Your task to perform on an android device: Open settings on Google Maps Image 0: 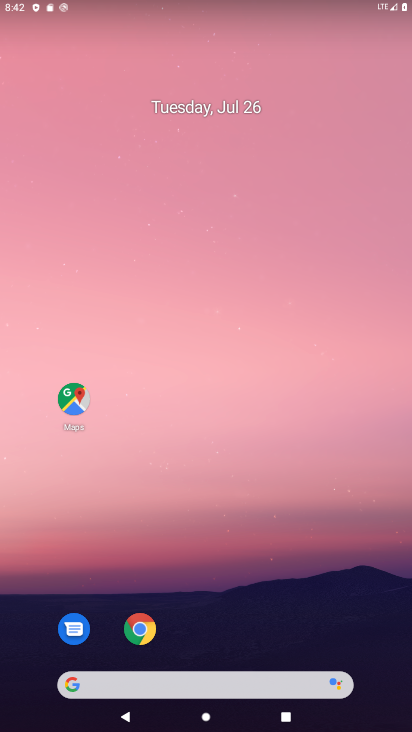
Step 0: click (132, 106)
Your task to perform on an android device: Open settings on Google Maps Image 1: 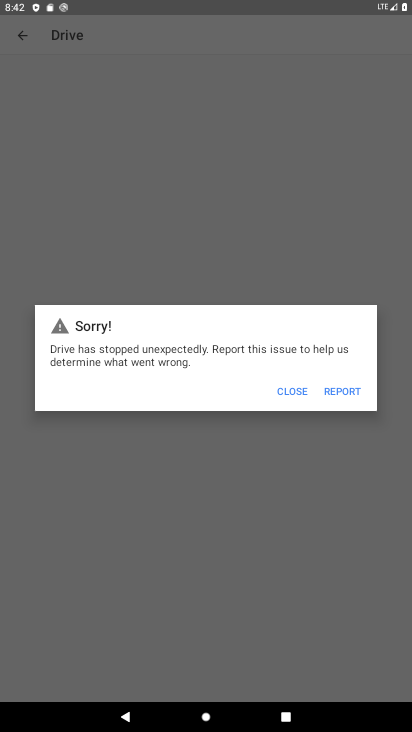
Step 1: press home button
Your task to perform on an android device: Open settings on Google Maps Image 2: 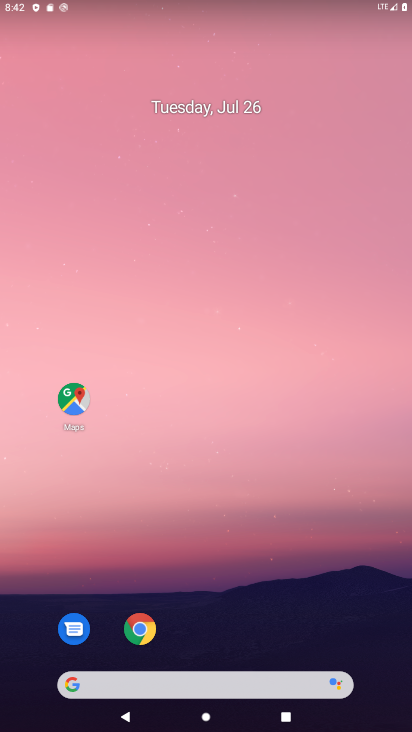
Step 2: drag from (237, 660) to (160, 15)
Your task to perform on an android device: Open settings on Google Maps Image 3: 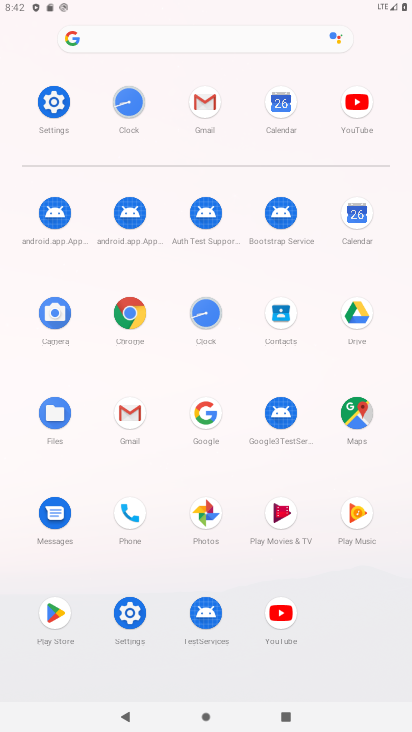
Step 3: click (359, 427)
Your task to perform on an android device: Open settings on Google Maps Image 4: 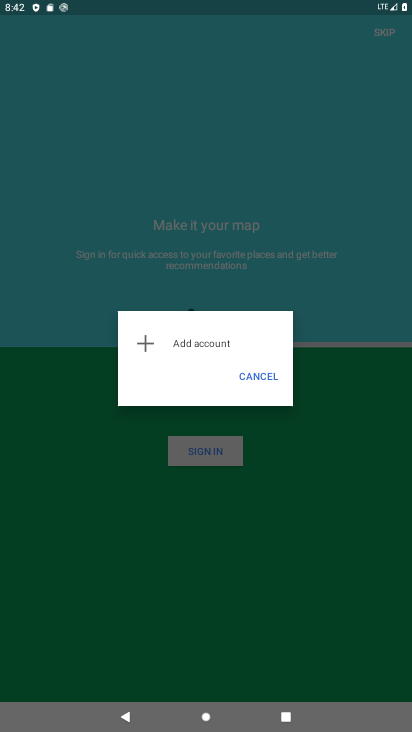
Step 4: click (266, 380)
Your task to perform on an android device: Open settings on Google Maps Image 5: 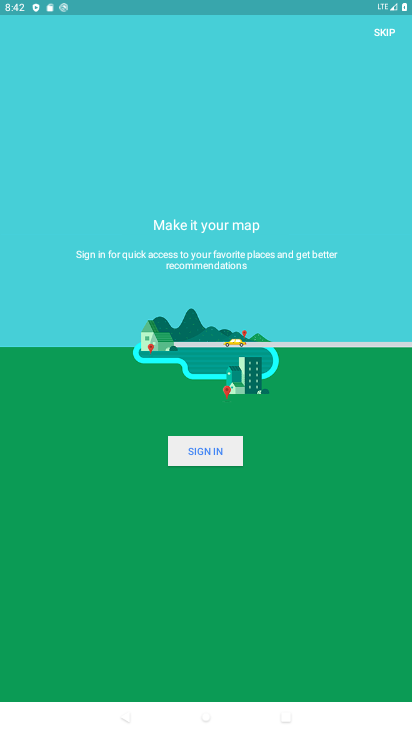
Step 5: click (384, 33)
Your task to perform on an android device: Open settings on Google Maps Image 6: 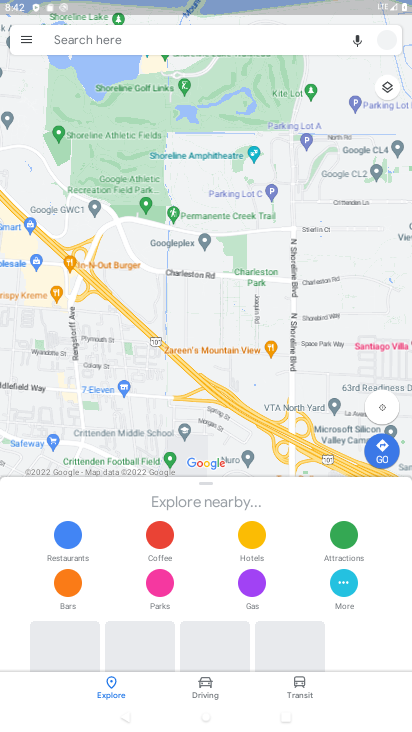
Step 6: click (370, 30)
Your task to perform on an android device: Open settings on Google Maps Image 7: 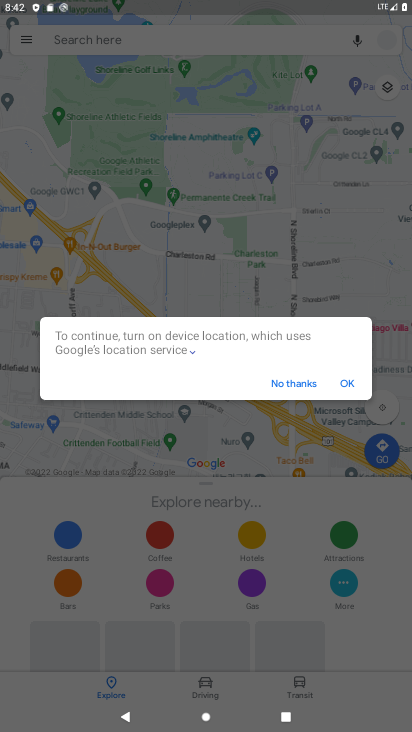
Step 7: click (266, 145)
Your task to perform on an android device: Open settings on Google Maps Image 8: 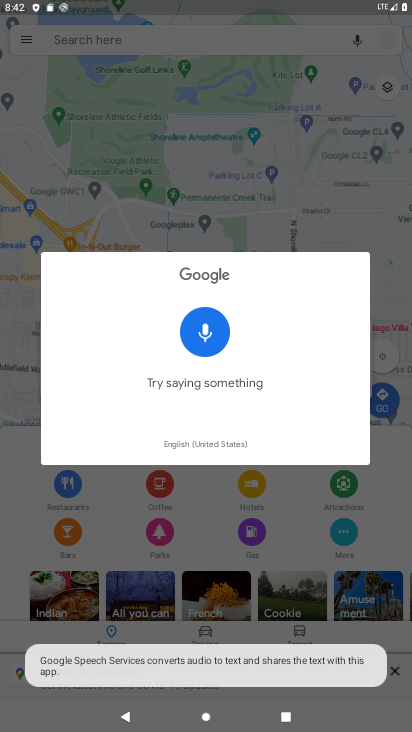
Step 8: click (275, 385)
Your task to perform on an android device: Open settings on Google Maps Image 9: 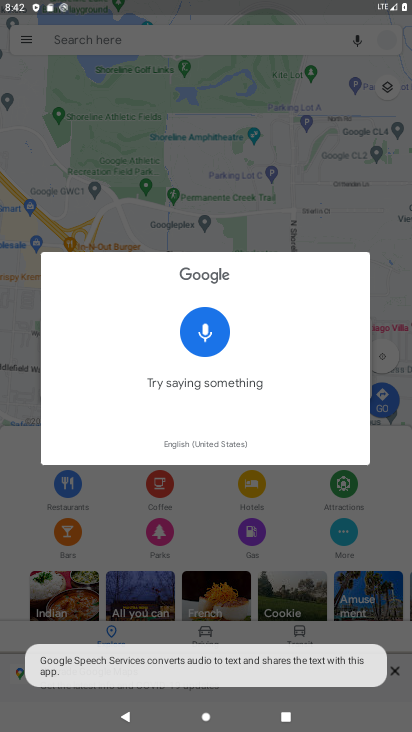
Step 9: click (259, 106)
Your task to perform on an android device: Open settings on Google Maps Image 10: 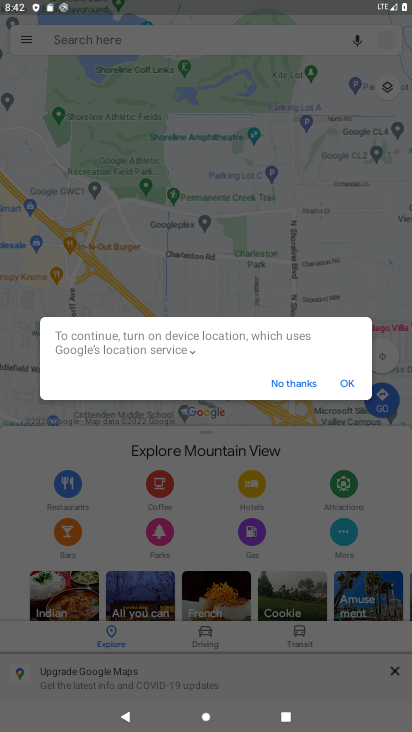
Step 10: click (382, 379)
Your task to perform on an android device: Open settings on Google Maps Image 11: 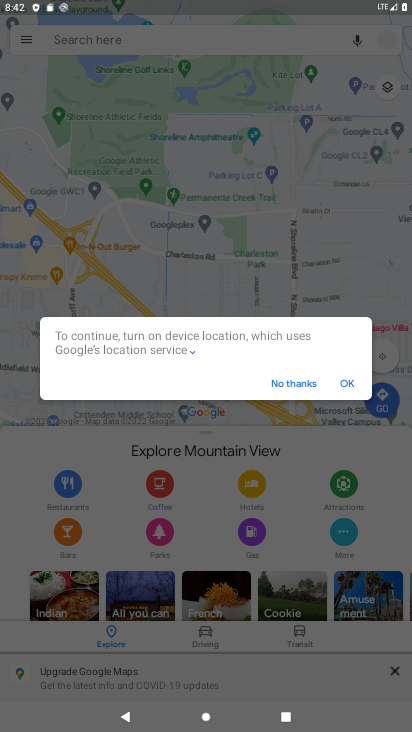
Step 11: click (352, 379)
Your task to perform on an android device: Open settings on Google Maps Image 12: 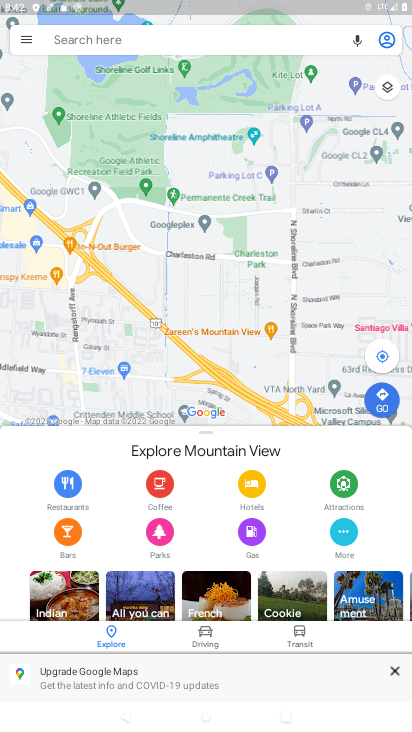
Step 12: click (20, 32)
Your task to perform on an android device: Open settings on Google Maps Image 13: 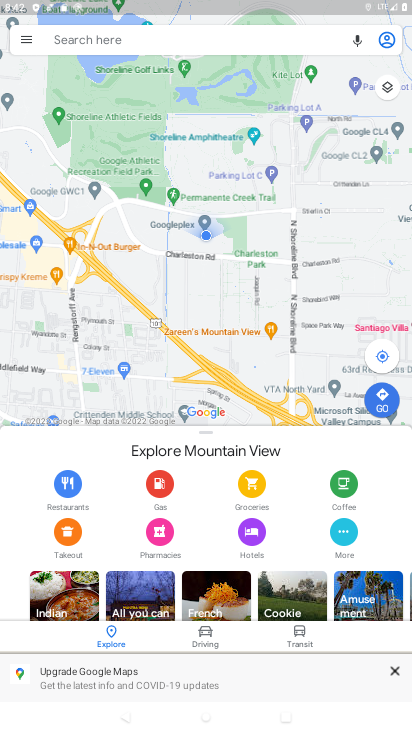
Step 13: click (23, 35)
Your task to perform on an android device: Open settings on Google Maps Image 14: 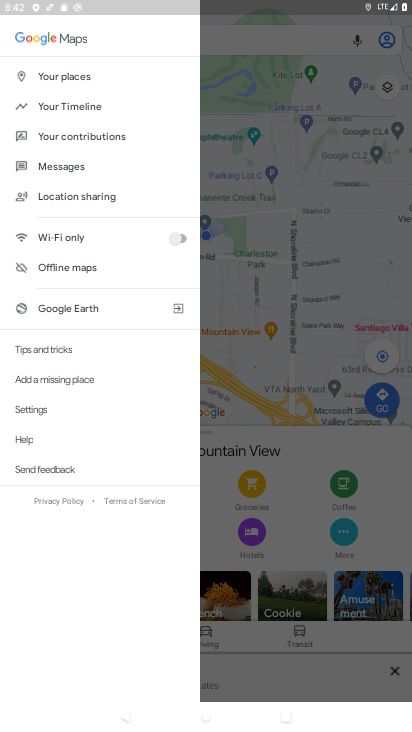
Step 14: click (23, 40)
Your task to perform on an android device: Open settings on Google Maps Image 15: 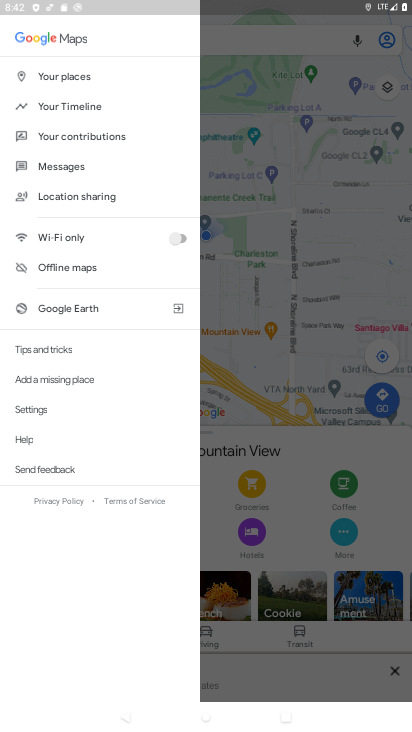
Step 15: click (27, 406)
Your task to perform on an android device: Open settings on Google Maps Image 16: 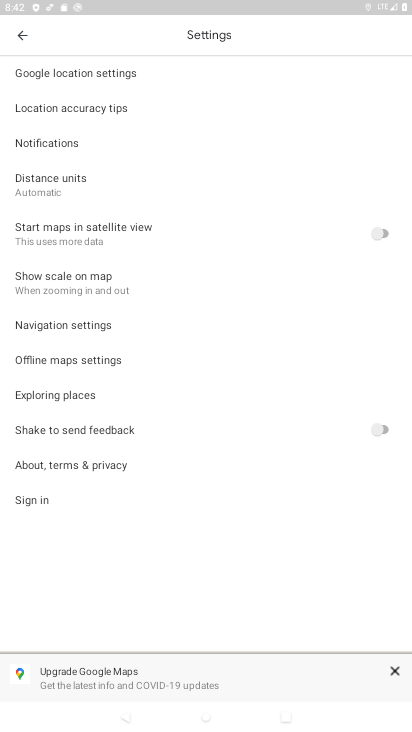
Step 16: task complete